Your task to perform on an android device: What's the weather today? Image 0: 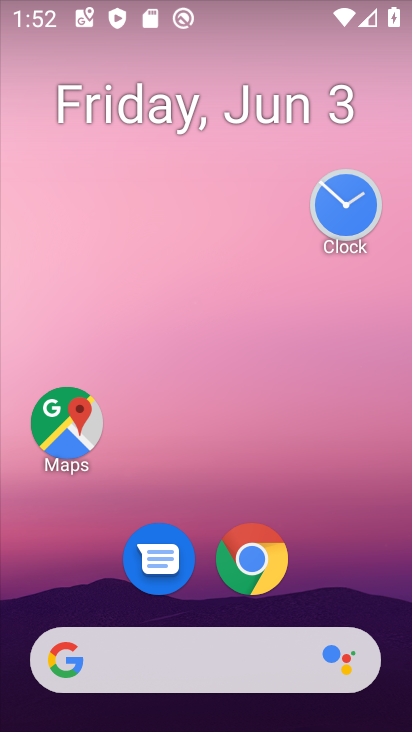
Step 0: drag from (24, 267) to (373, 308)
Your task to perform on an android device: What's the weather today? Image 1: 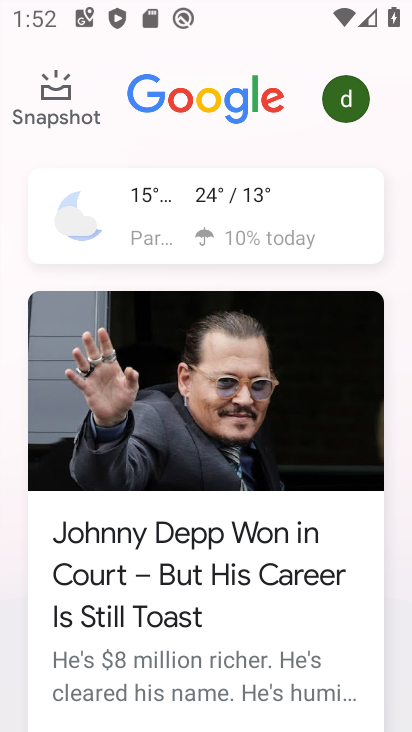
Step 1: click (298, 207)
Your task to perform on an android device: What's the weather today? Image 2: 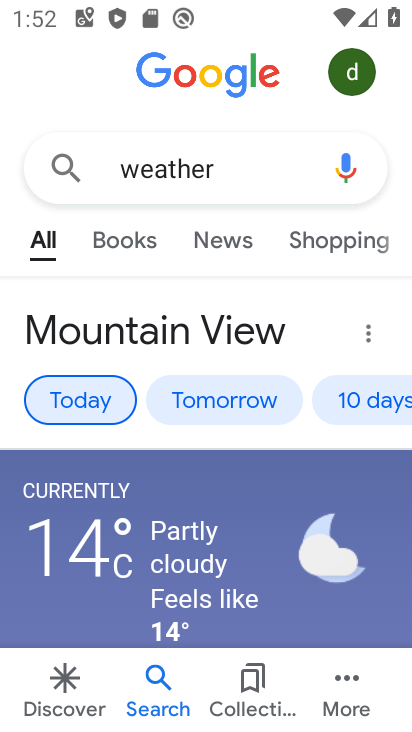
Step 2: task complete